Your task to perform on an android device: How much does a 3 bedroom apartment rent for in Los Angeles? Image 0: 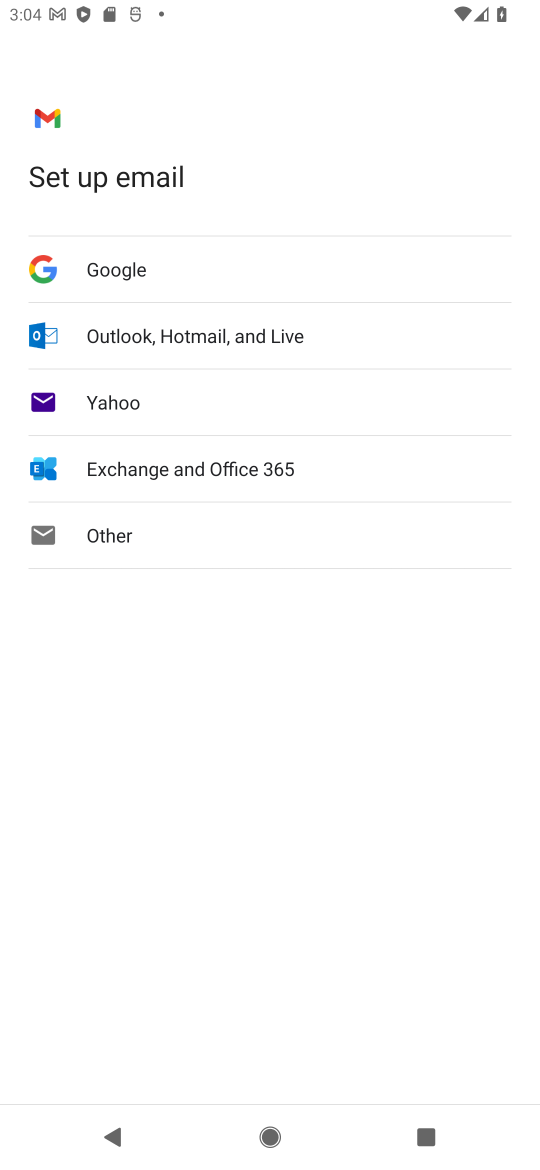
Step 0: press home button
Your task to perform on an android device: How much does a 3 bedroom apartment rent for in Los Angeles? Image 1: 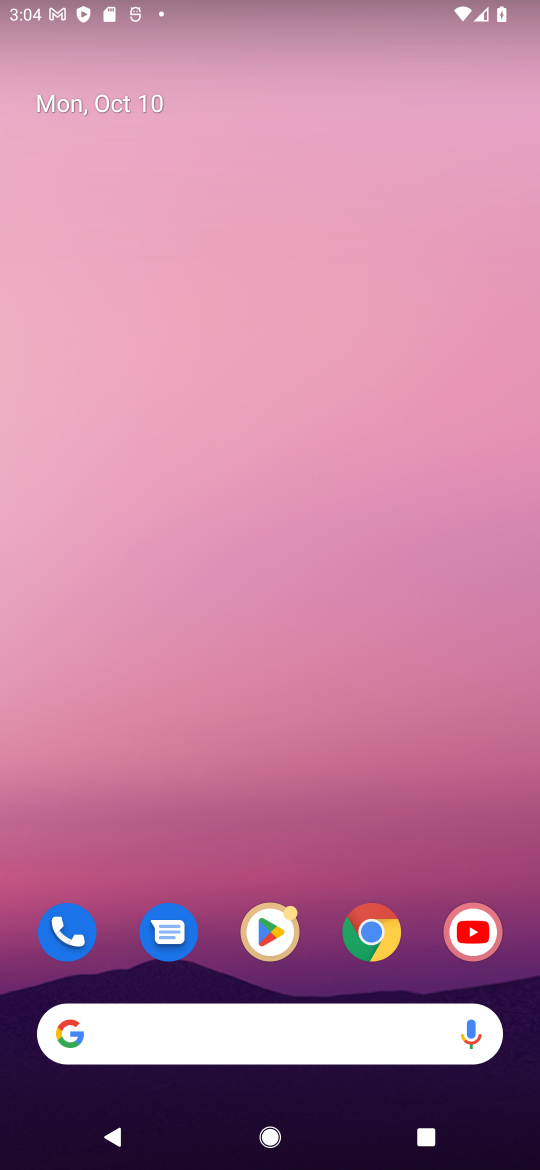
Step 1: click (335, 1049)
Your task to perform on an android device: How much does a 3 bedroom apartment rent for in Los Angeles? Image 2: 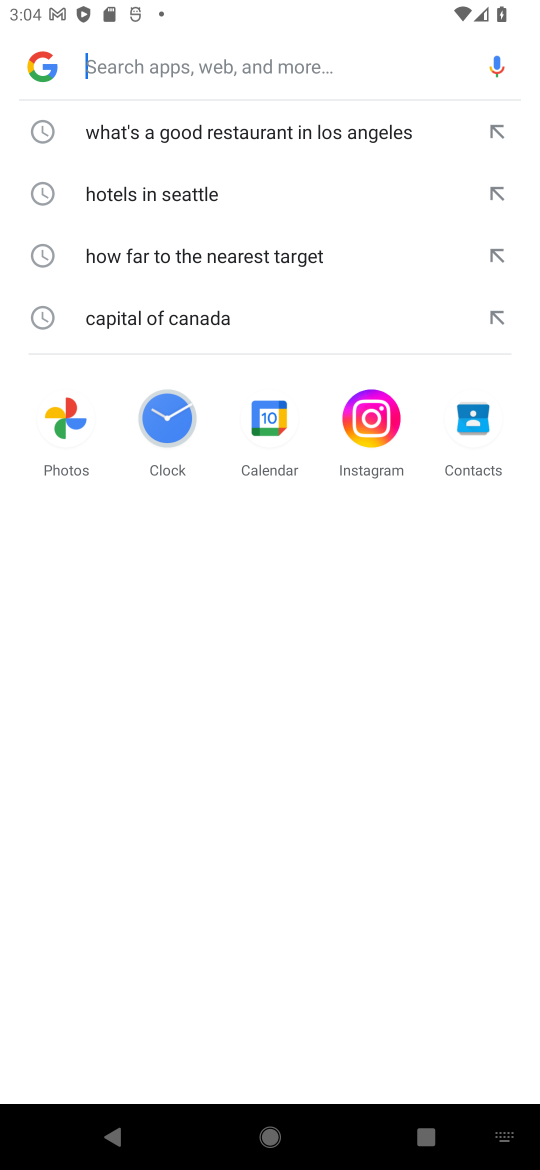
Step 2: type "3 bedroom apartment rent for in Los Angeles"
Your task to perform on an android device: How much does a 3 bedroom apartment rent for in Los Angeles? Image 3: 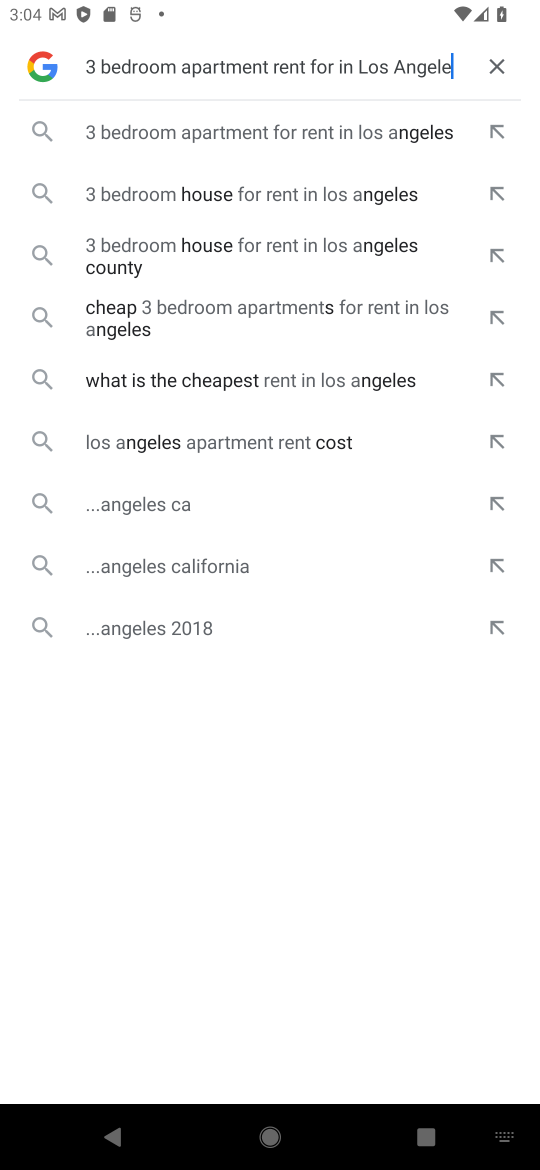
Step 3: press enter
Your task to perform on an android device: How much does a 3 bedroom apartment rent for in Los Angeles? Image 4: 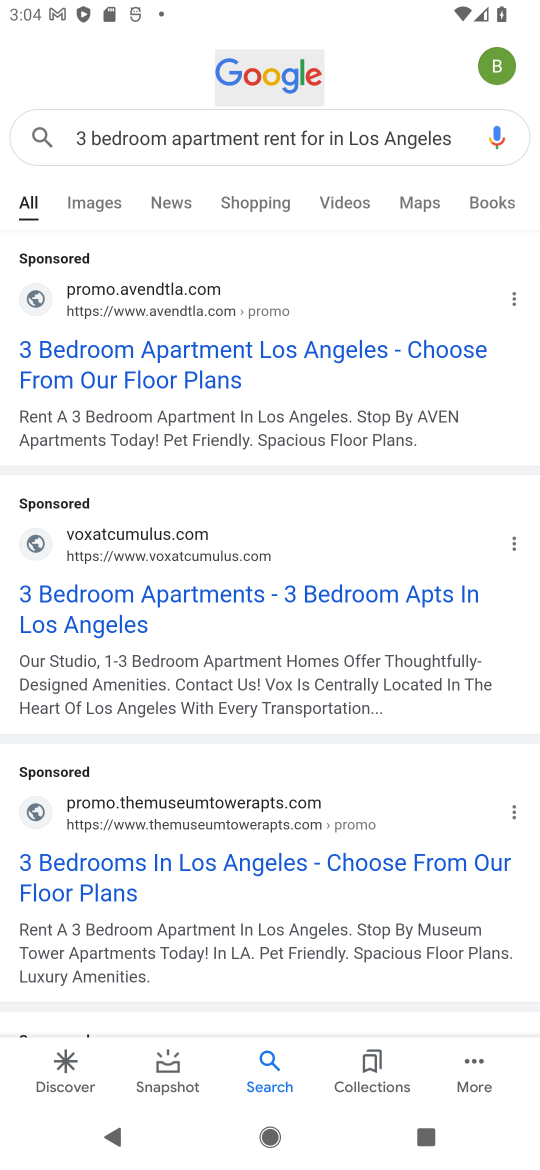
Step 4: click (209, 356)
Your task to perform on an android device: How much does a 3 bedroom apartment rent for in Los Angeles? Image 5: 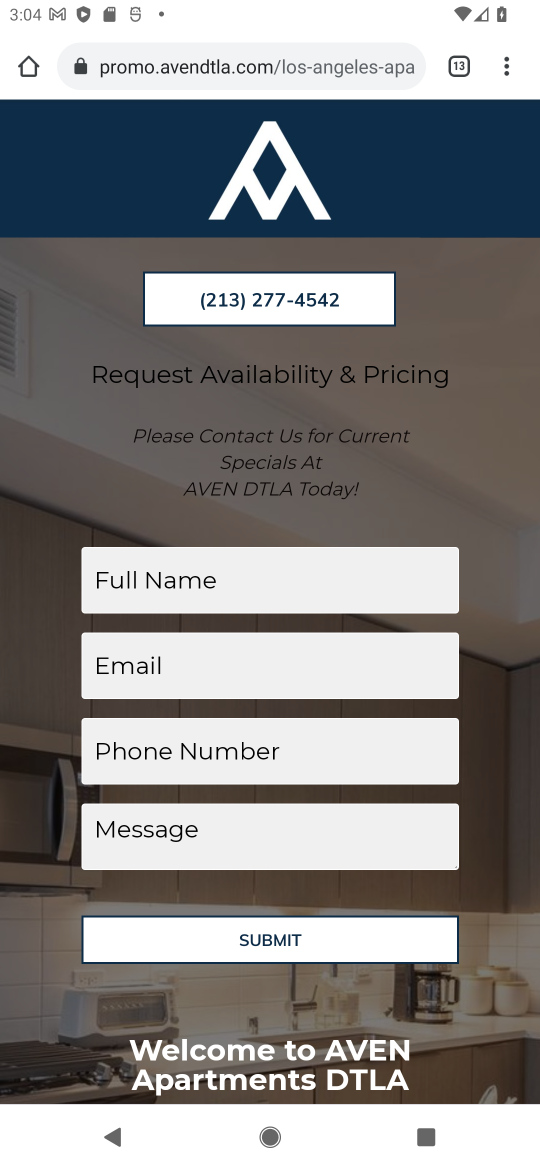
Step 5: task complete